Your task to perform on an android device: turn on improve location accuracy Image 0: 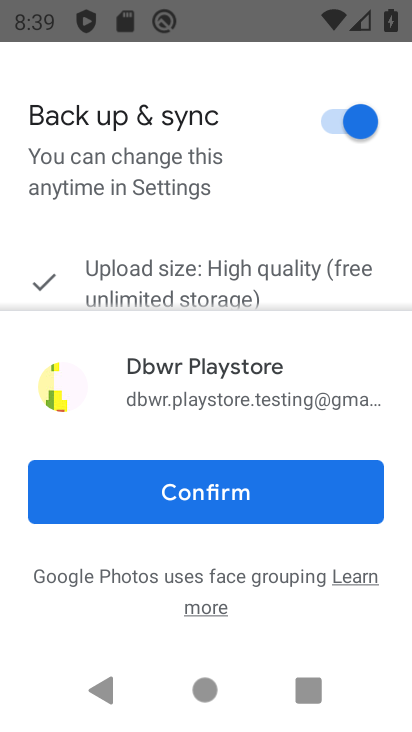
Step 0: press home button
Your task to perform on an android device: turn on improve location accuracy Image 1: 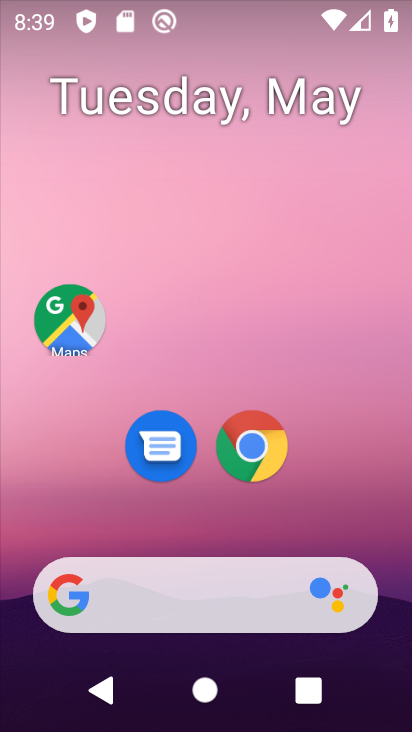
Step 1: drag from (395, 572) to (376, 281)
Your task to perform on an android device: turn on improve location accuracy Image 2: 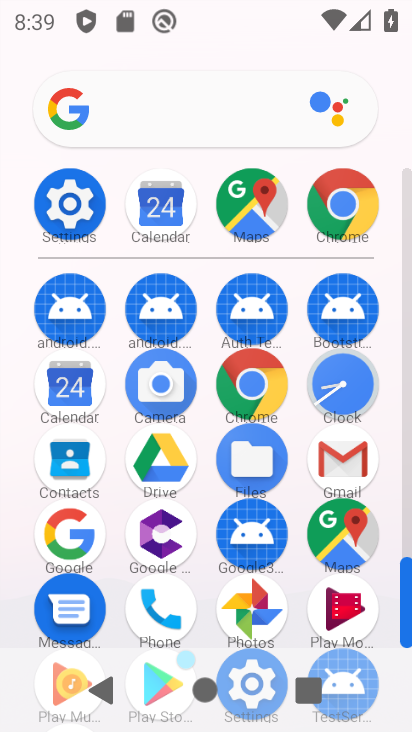
Step 2: drag from (386, 593) to (392, 425)
Your task to perform on an android device: turn on improve location accuracy Image 3: 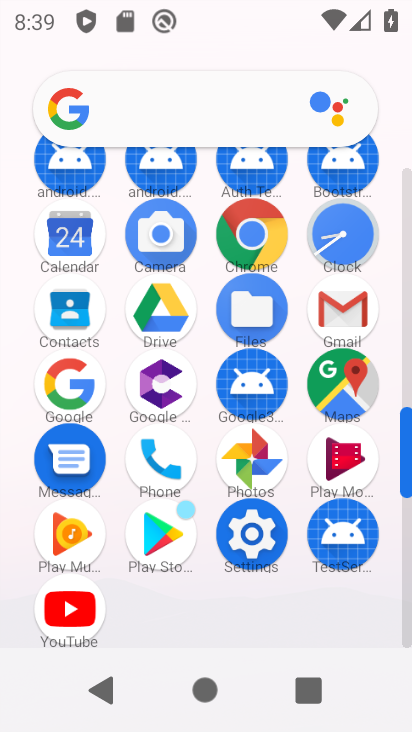
Step 3: click (238, 545)
Your task to perform on an android device: turn on improve location accuracy Image 4: 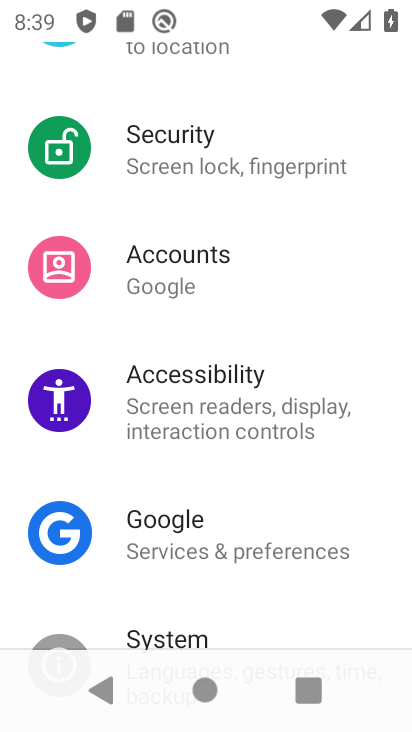
Step 4: drag from (371, 592) to (385, 493)
Your task to perform on an android device: turn on improve location accuracy Image 5: 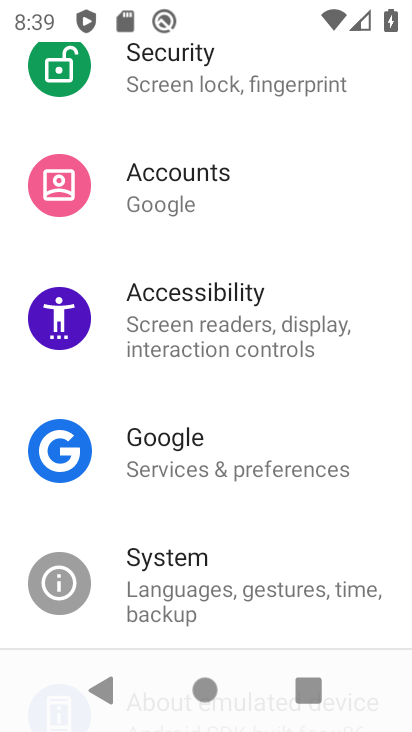
Step 5: drag from (369, 625) to (367, 489)
Your task to perform on an android device: turn on improve location accuracy Image 6: 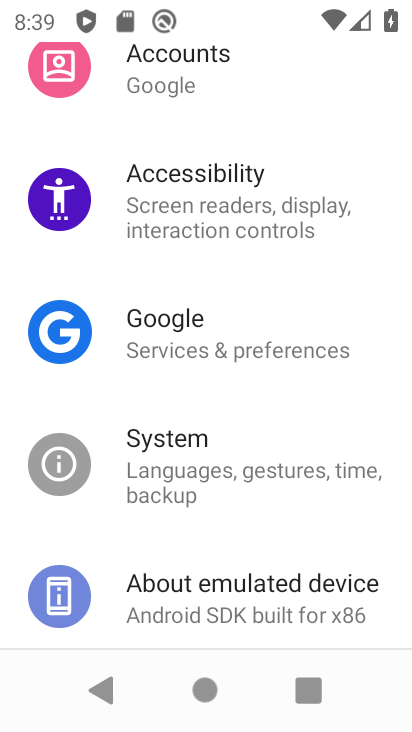
Step 6: drag from (360, 576) to (372, 463)
Your task to perform on an android device: turn on improve location accuracy Image 7: 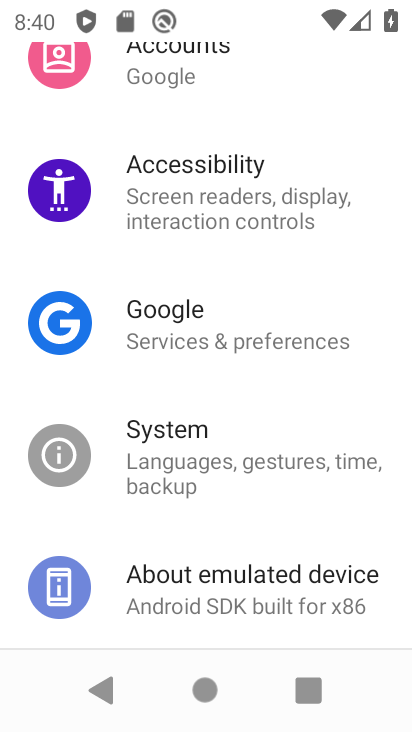
Step 7: drag from (390, 367) to (385, 428)
Your task to perform on an android device: turn on improve location accuracy Image 8: 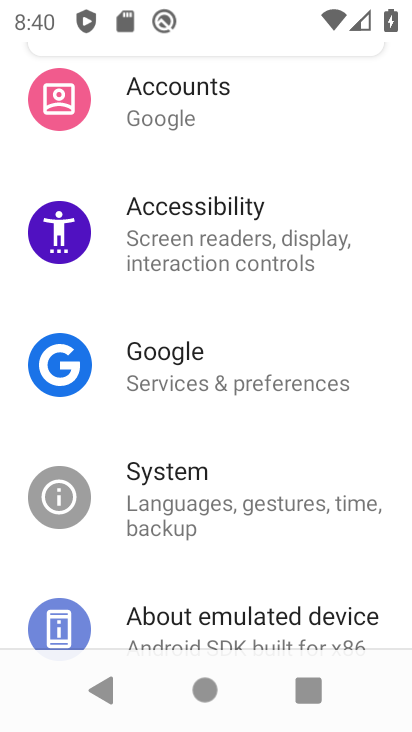
Step 8: drag from (375, 334) to (370, 421)
Your task to perform on an android device: turn on improve location accuracy Image 9: 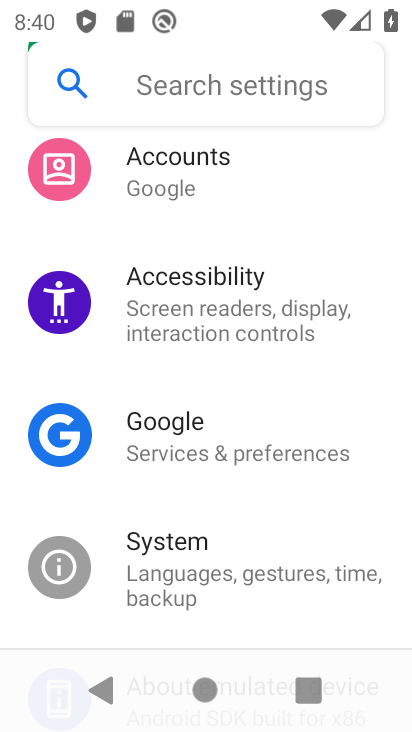
Step 9: drag from (358, 336) to (342, 457)
Your task to perform on an android device: turn on improve location accuracy Image 10: 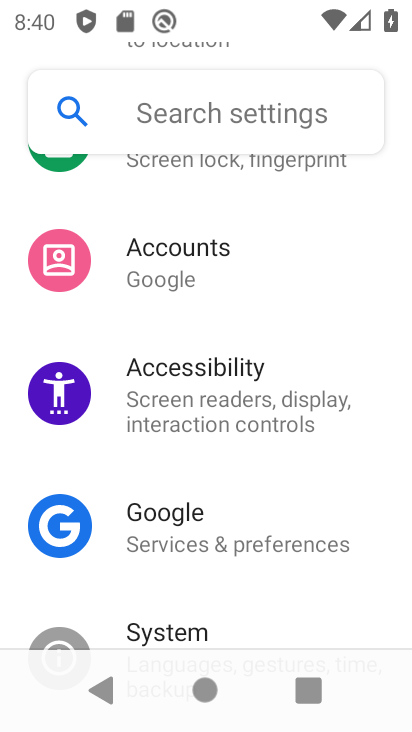
Step 10: drag from (358, 333) to (366, 421)
Your task to perform on an android device: turn on improve location accuracy Image 11: 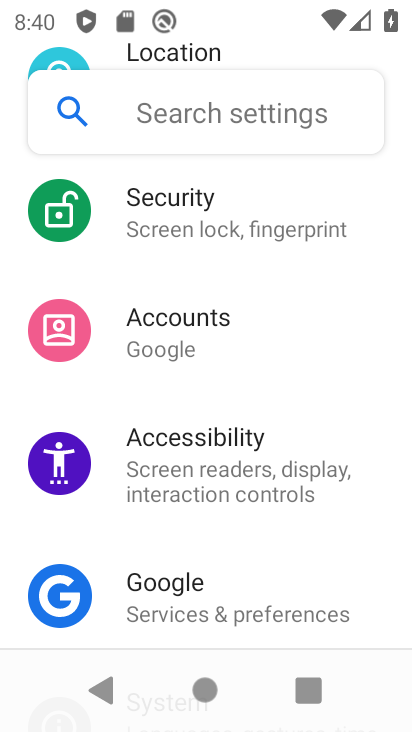
Step 11: drag from (368, 333) to (364, 413)
Your task to perform on an android device: turn on improve location accuracy Image 12: 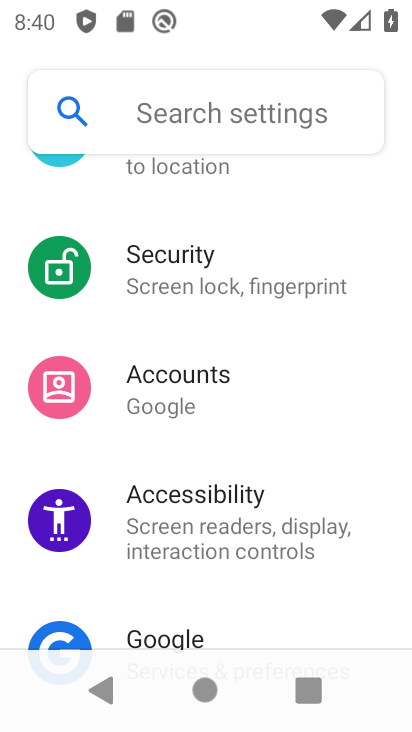
Step 12: drag from (381, 319) to (381, 391)
Your task to perform on an android device: turn on improve location accuracy Image 13: 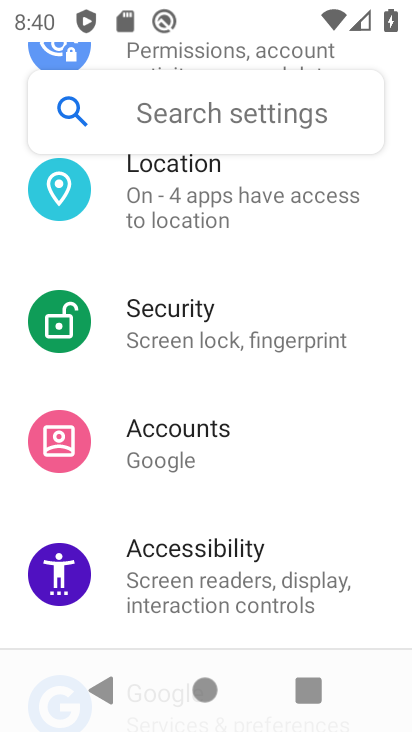
Step 13: drag from (386, 317) to (390, 364)
Your task to perform on an android device: turn on improve location accuracy Image 14: 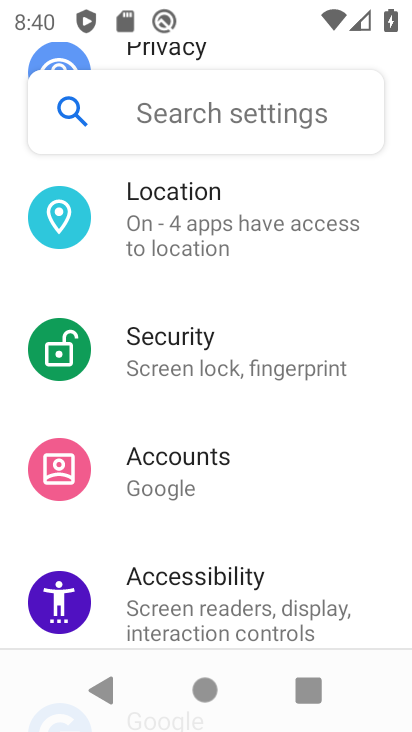
Step 14: drag from (405, 312) to (397, 351)
Your task to perform on an android device: turn on improve location accuracy Image 15: 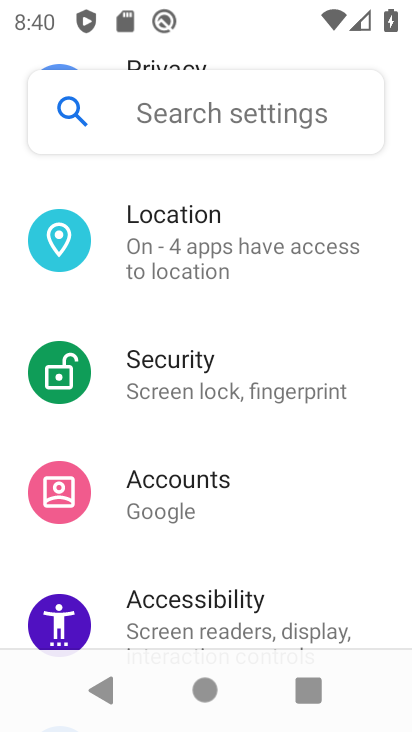
Step 15: click (401, 326)
Your task to perform on an android device: turn on improve location accuracy Image 16: 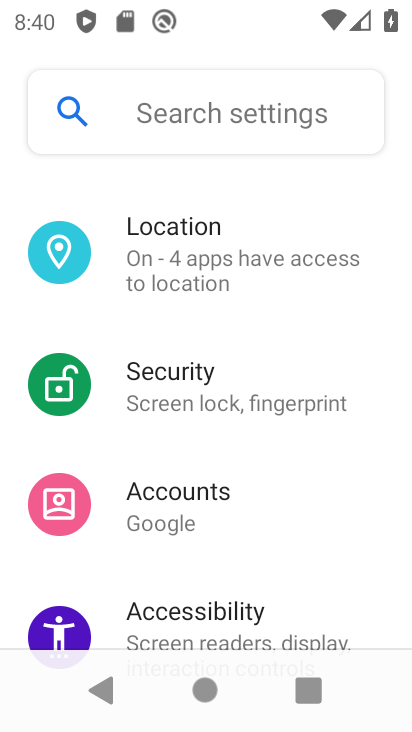
Step 16: drag from (396, 307) to (402, 360)
Your task to perform on an android device: turn on improve location accuracy Image 17: 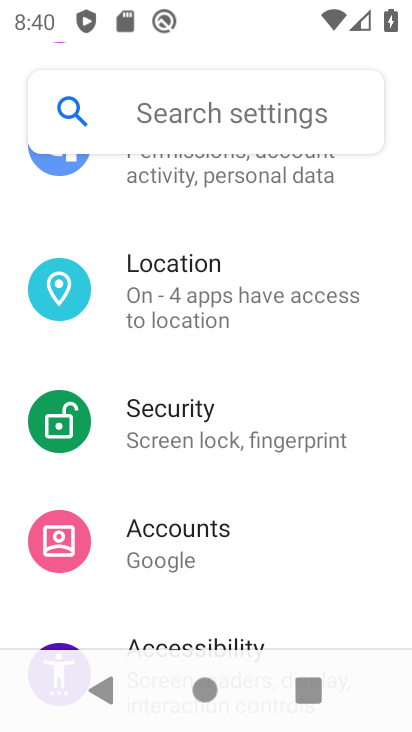
Step 17: drag from (407, 322) to (403, 363)
Your task to perform on an android device: turn on improve location accuracy Image 18: 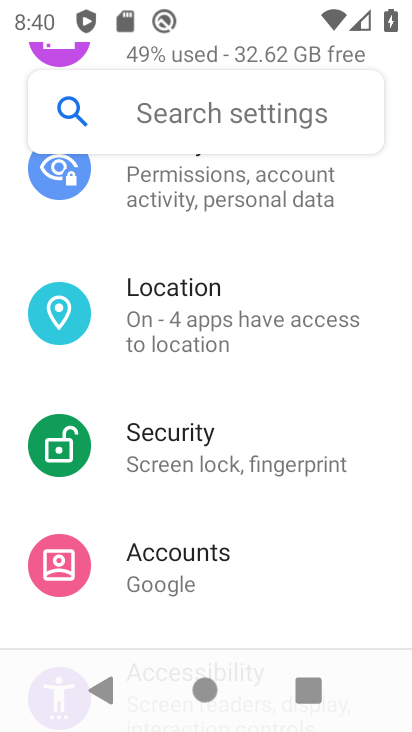
Step 18: drag from (402, 326) to (386, 404)
Your task to perform on an android device: turn on improve location accuracy Image 19: 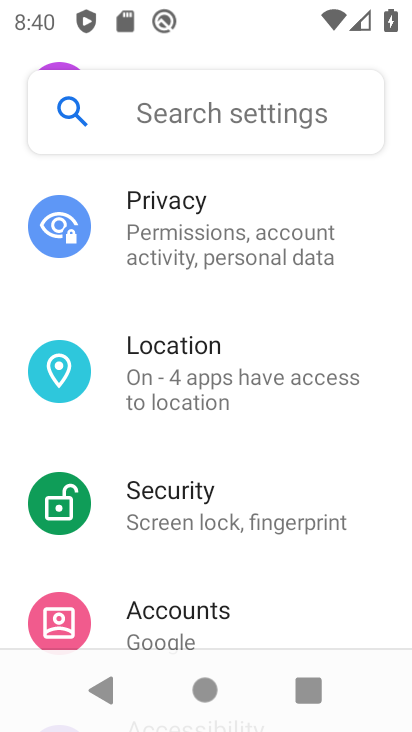
Step 19: drag from (372, 306) to (365, 379)
Your task to perform on an android device: turn on improve location accuracy Image 20: 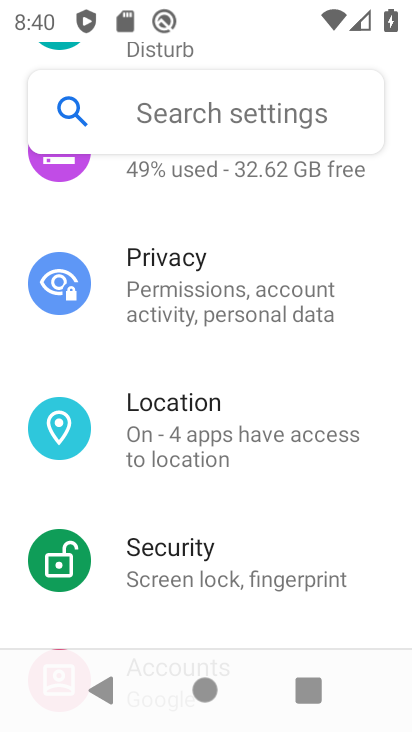
Step 20: click (331, 438)
Your task to perform on an android device: turn on improve location accuracy Image 21: 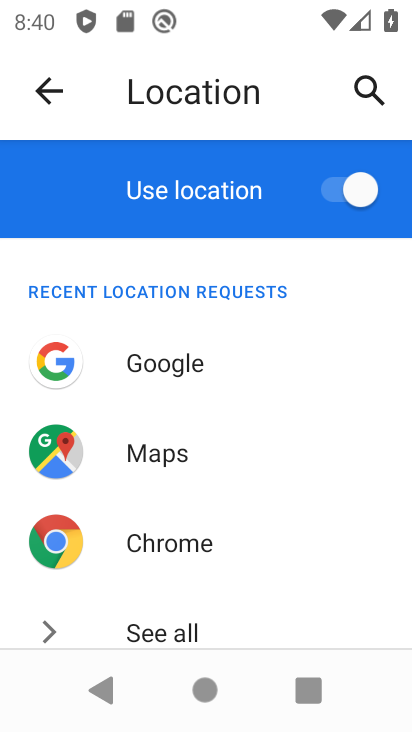
Step 21: drag from (331, 466) to (357, 385)
Your task to perform on an android device: turn on improve location accuracy Image 22: 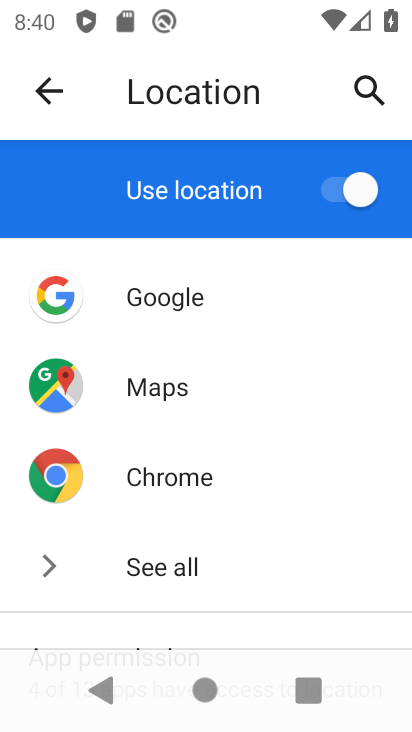
Step 22: drag from (353, 514) to (366, 441)
Your task to perform on an android device: turn on improve location accuracy Image 23: 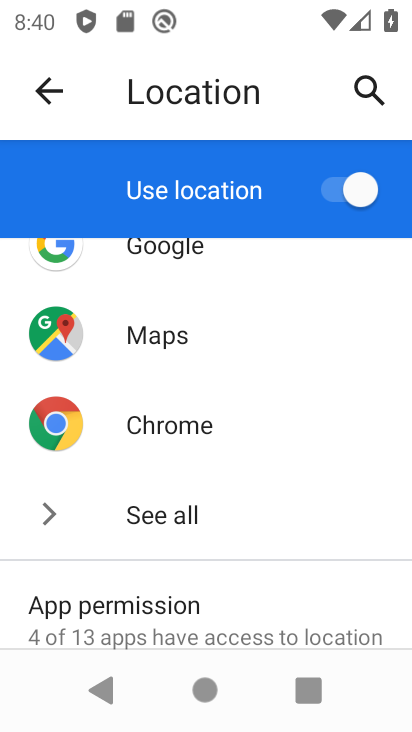
Step 23: drag from (354, 490) to (376, 441)
Your task to perform on an android device: turn on improve location accuracy Image 24: 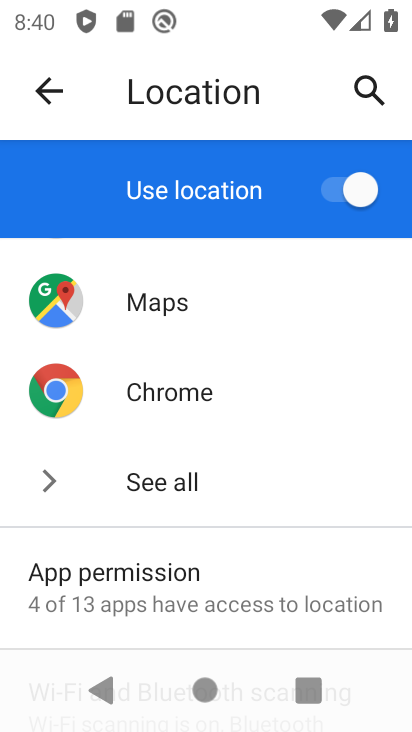
Step 24: drag from (369, 512) to (383, 434)
Your task to perform on an android device: turn on improve location accuracy Image 25: 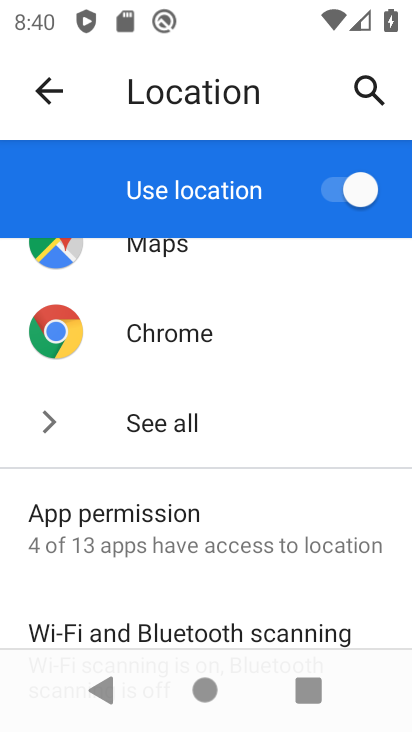
Step 25: drag from (386, 451) to (401, 414)
Your task to perform on an android device: turn on improve location accuracy Image 26: 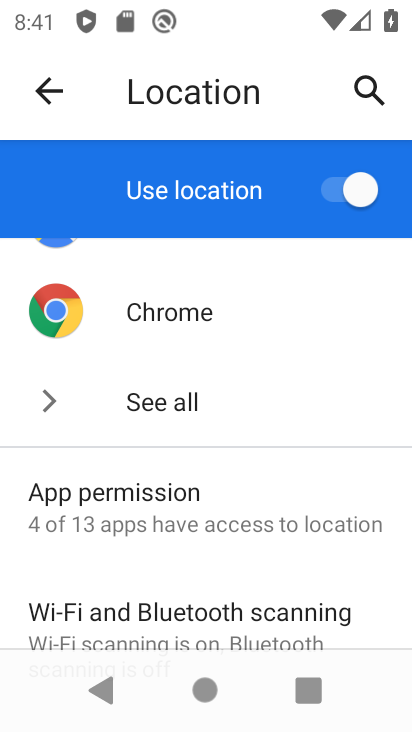
Step 26: drag from (379, 530) to (392, 459)
Your task to perform on an android device: turn on improve location accuracy Image 27: 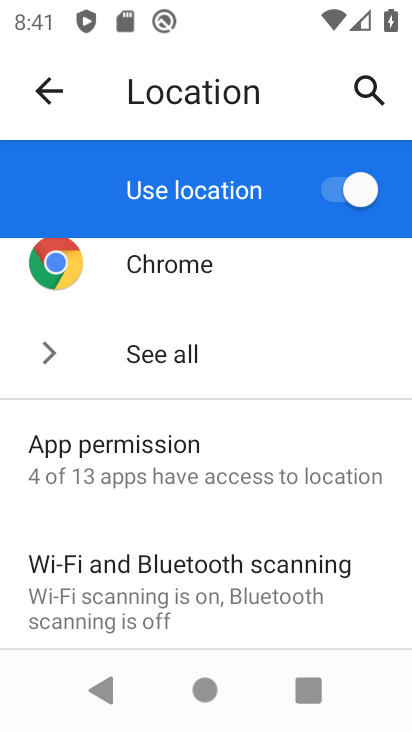
Step 27: drag from (379, 554) to (388, 421)
Your task to perform on an android device: turn on improve location accuracy Image 28: 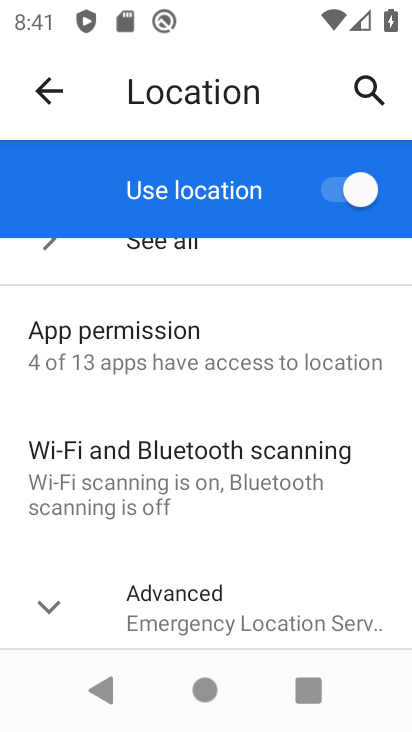
Step 28: drag from (312, 589) to (328, 494)
Your task to perform on an android device: turn on improve location accuracy Image 29: 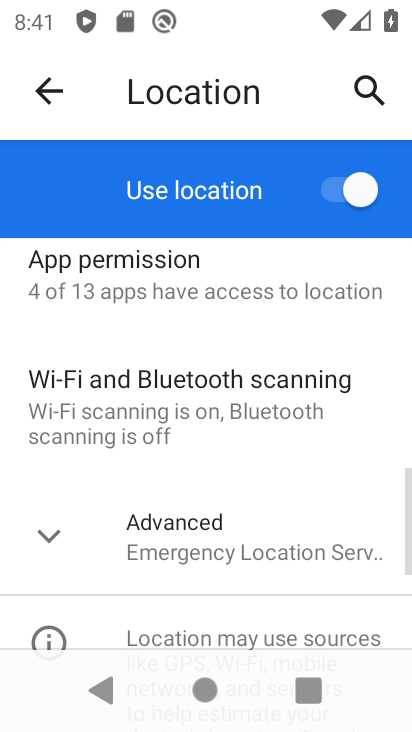
Step 29: click (318, 559)
Your task to perform on an android device: turn on improve location accuracy Image 30: 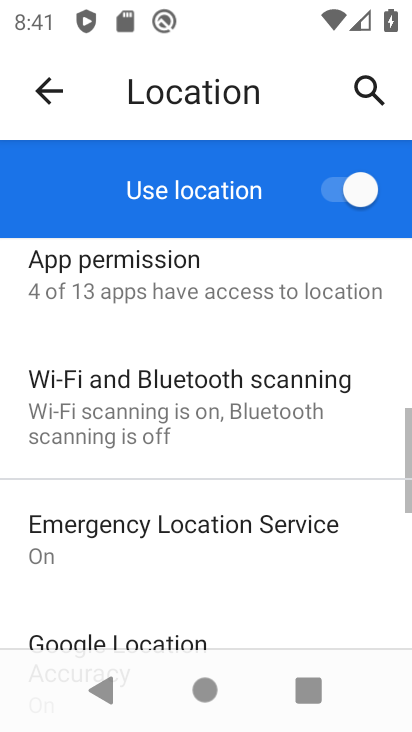
Step 30: drag from (323, 584) to (349, 471)
Your task to perform on an android device: turn on improve location accuracy Image 31: 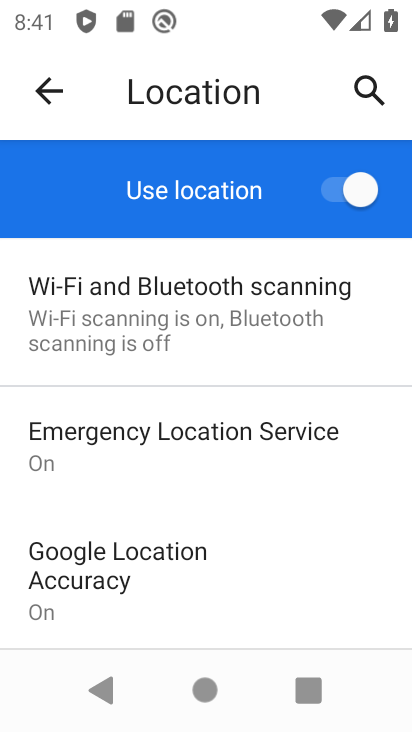
Step 31: drag from (329, 572) to (343, 493)
Your task to perform on an android device: turn on improve location accuracy Image 32: 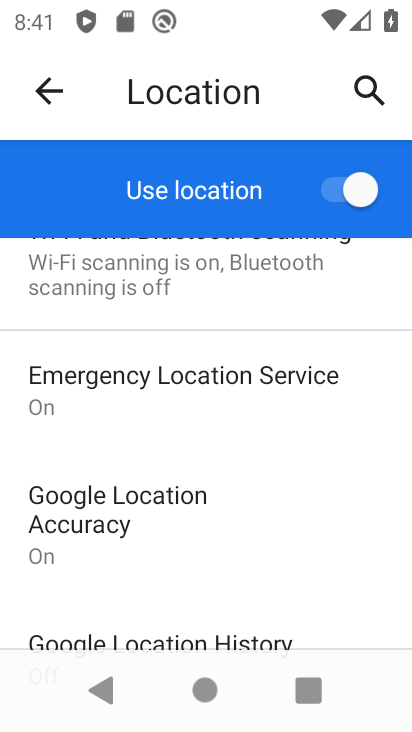
Step 32: click (199, 534)
Your task to perform on an android device: turn on improve location accuracy Image 33: 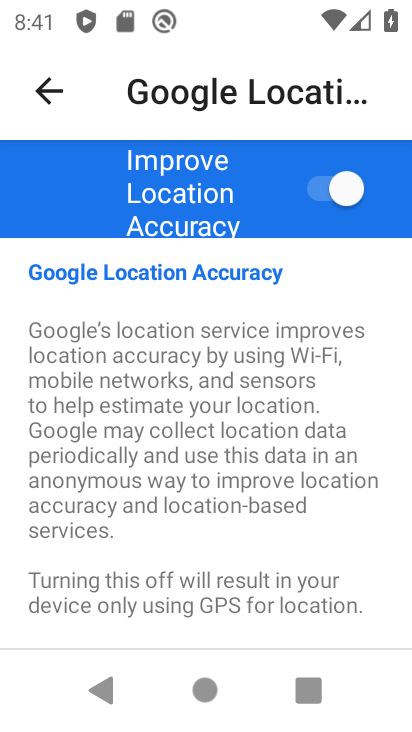
Step 33: task complete